Your task to perform on an android device: Open Google Maps and go to "Timeline" Image 0: 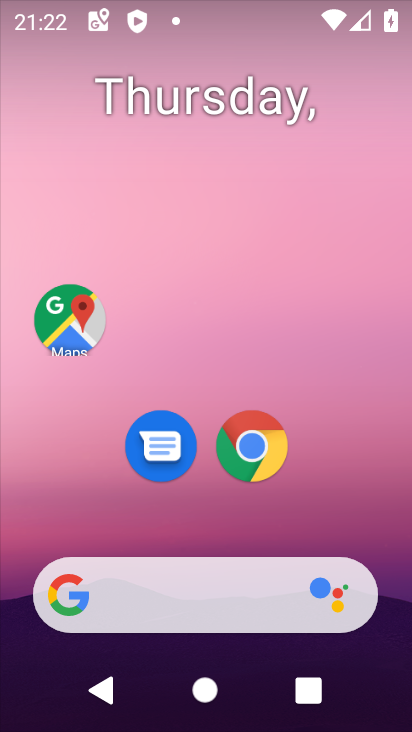
Step 0: click (111, 320)
Your task to perform on an android device: Open Google Maps and go to "Timeline" Image 1: 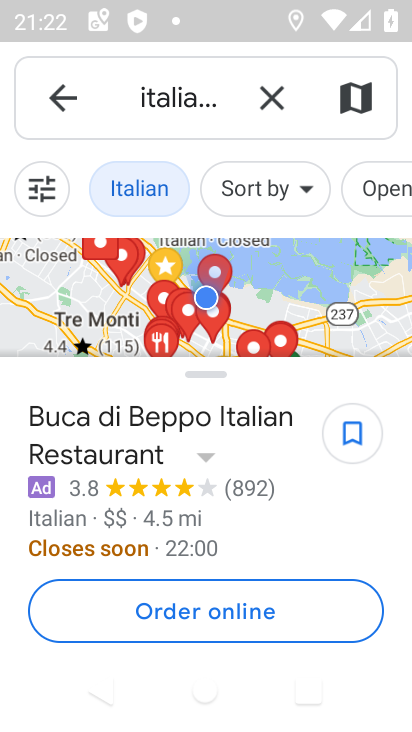
Step 1: click (56, 93)
Your task to perform on an android device: Open Google Maps and go to "Timeline" Image 2: 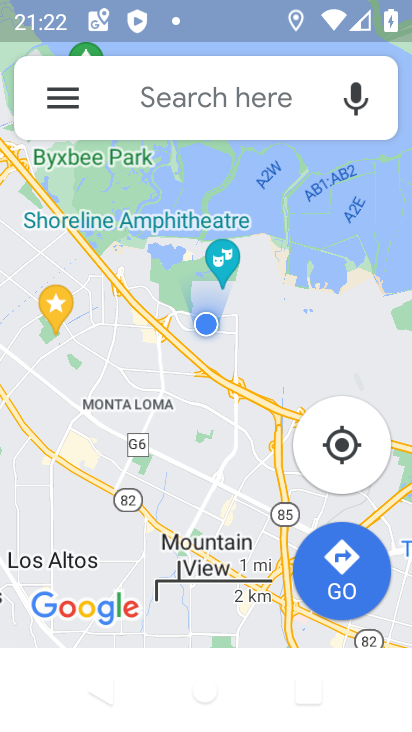
Step 2: click (56, 93)
Your task to perform on an android device: Open Google Maps and go to "Timeline" Image 3: 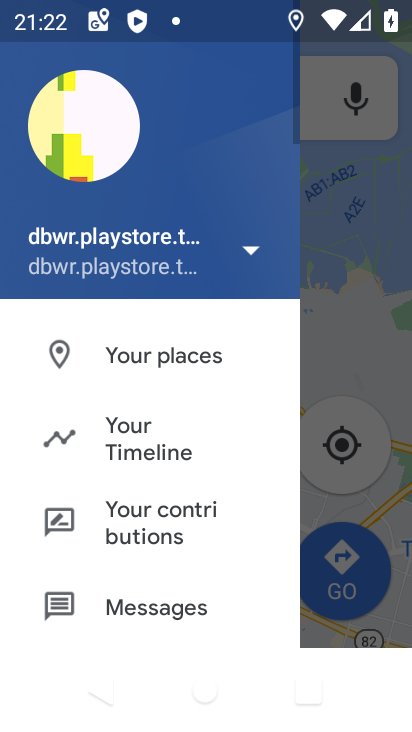
Step 3: click (93, 429)
Your task to perform on an android device: Open Google Maps and go to "Timeline" Image 4: 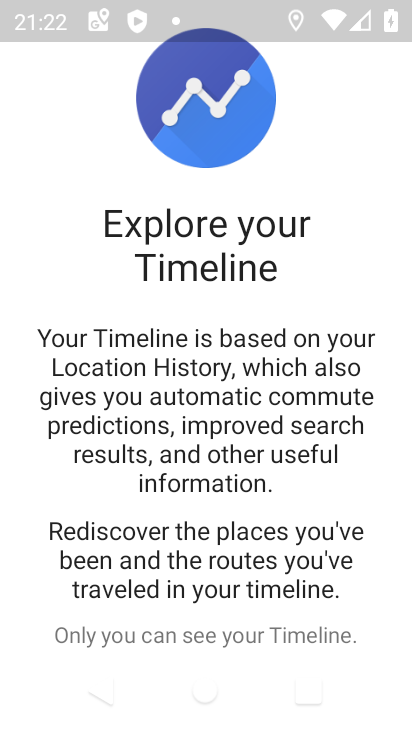
Step 4: drag from (344, 608) to (386, 38)
Your task to perform on an android device: Open Google Maps and go to "Timeline" Image 5: 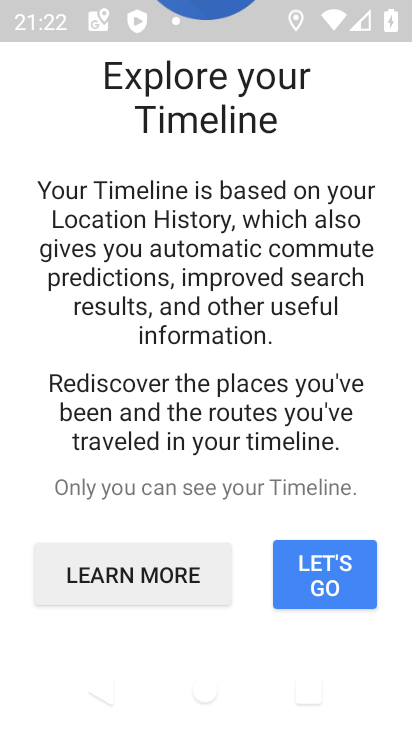
Step 5: click (314, 598)
Your task to perform on an android device: Open Google Maps and go to "Timeline" Image 6: 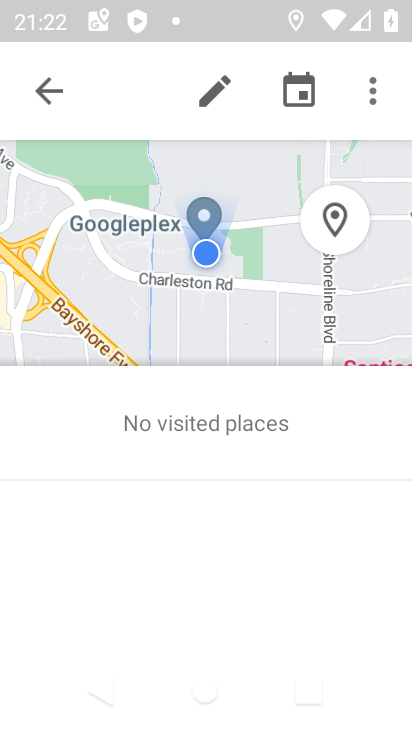
Step 6: click (371, 88)
Your task to perform on an android device: Open Google Maps and go to "Timeline" Image 7: 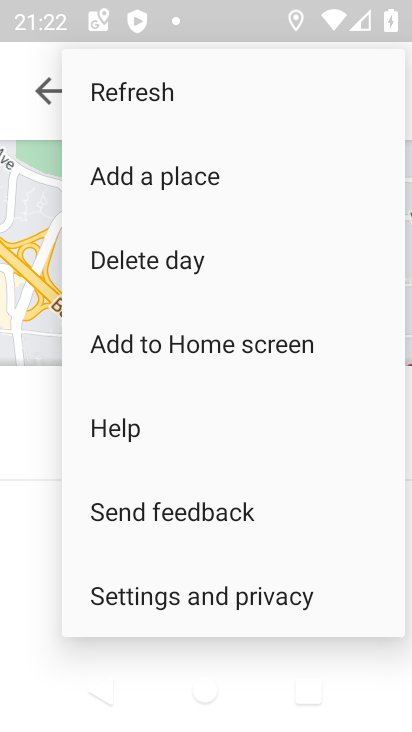
Step 7: click (23, 557)
Your task to perform on an android device: Open Google Maps and go to "Timeline" Image 8: 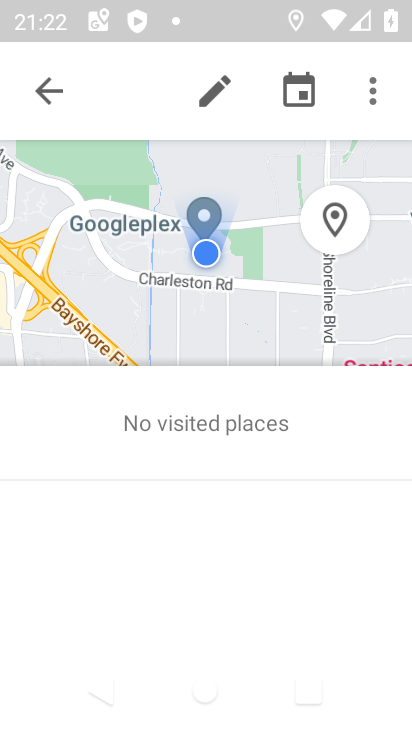
Step 8: task complete